Your task to perform on an android device: toggle wifi Image 0: 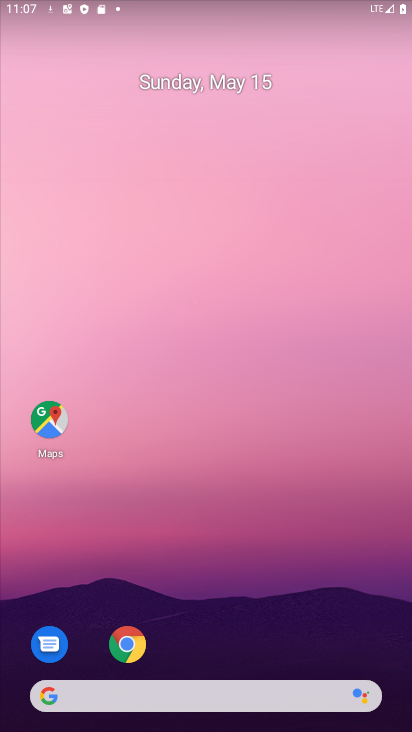
Step 0: drag from (222, 711) to (298, 370)
Your task to perform on an android device: toggle wifi Image 1: 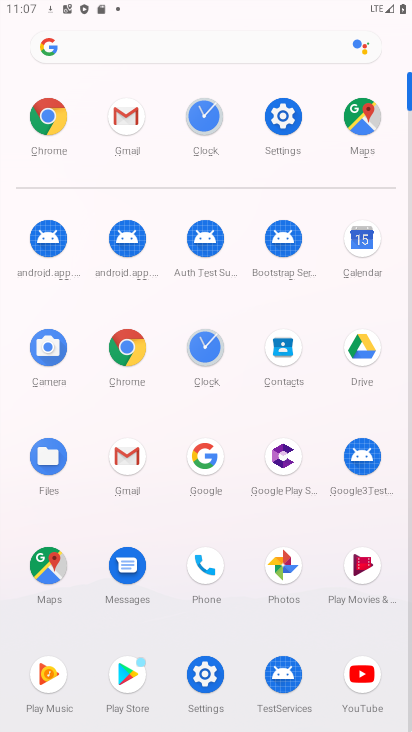
Step 1: click (289, 118)
Your task to perform on an android device: toggle wifi Image 2: 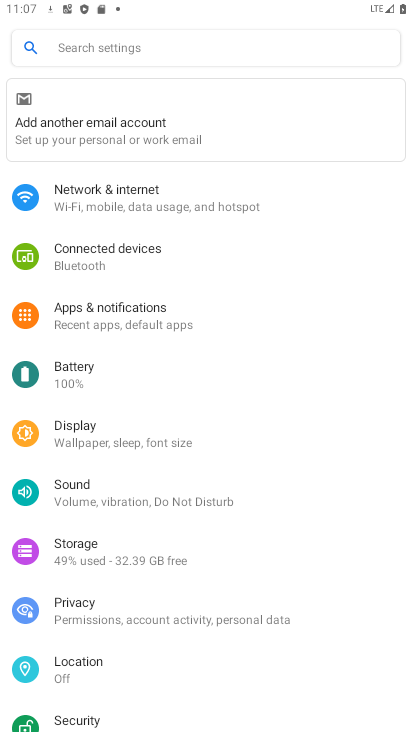
Step 2: click (155, 187)
Your task to perform on an android device: toggle wifi Image 3: 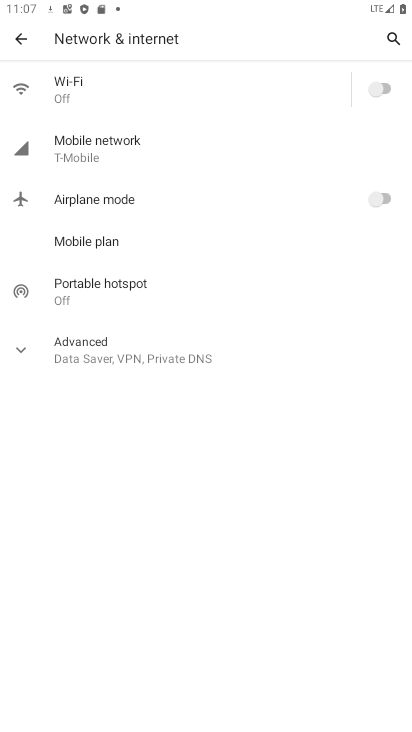
Step 3: click (199, 91)
Your task to perform on an android device: toggle wifi Image 4: 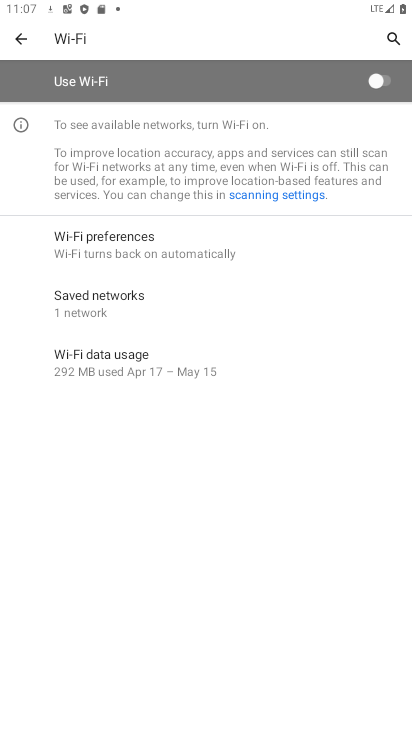
Step 4: task complete